Your task to perform on an android device: turn off wifi Image 0: 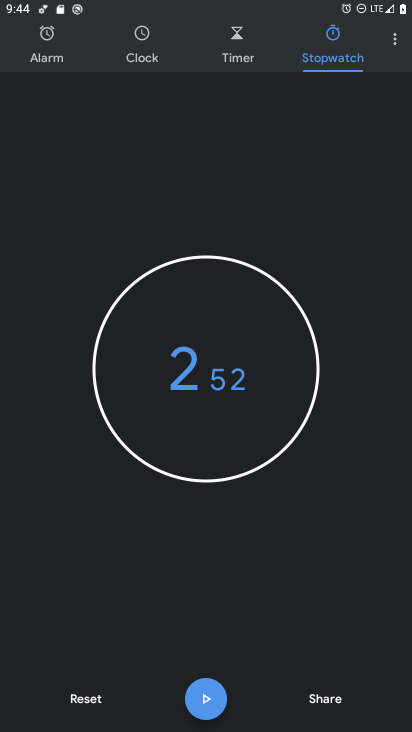
Step 0: press home button
Your task to perform on an android device: turn off wifi Image 1: 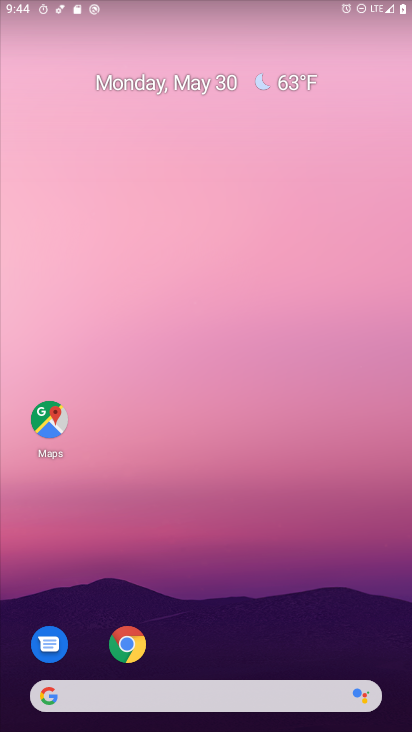
Step 1: drag from (214, 639) to (218, 31)
Your task to perform on an android device: turn off wifi Image 2: 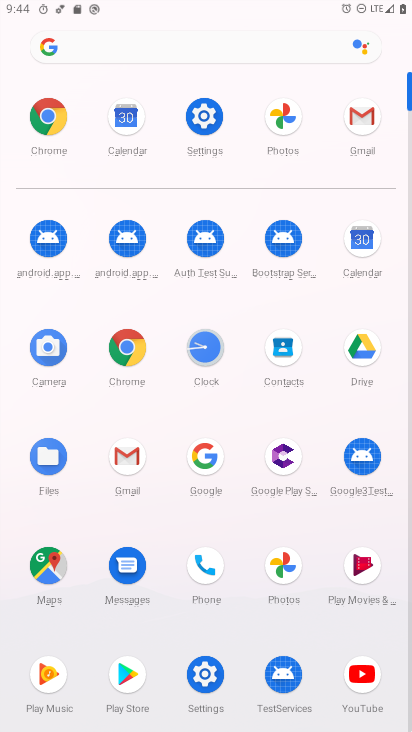
Step 2: click (206, 115)
Your task to perform on an android device: turn off wifi Image 3: 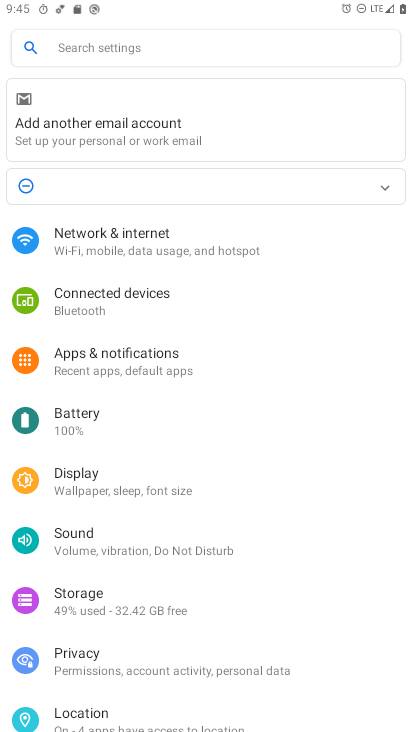
Step 3: click (134, 242)
Your task to perform on an android device: turn off wifi Image 4: 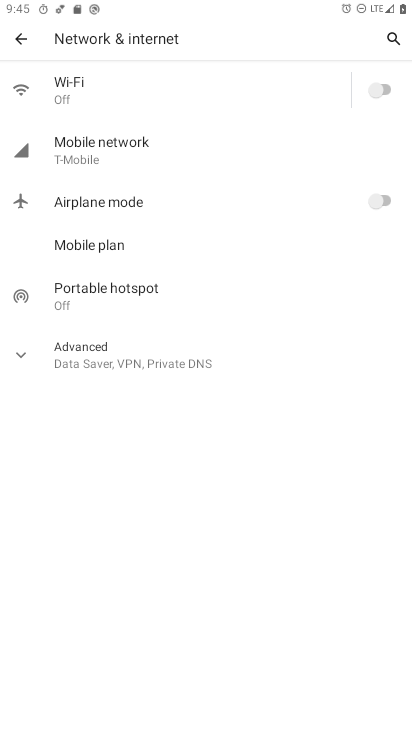
Step 4: task complete